Your task to perform on an android device: Open Android settings Image 0: 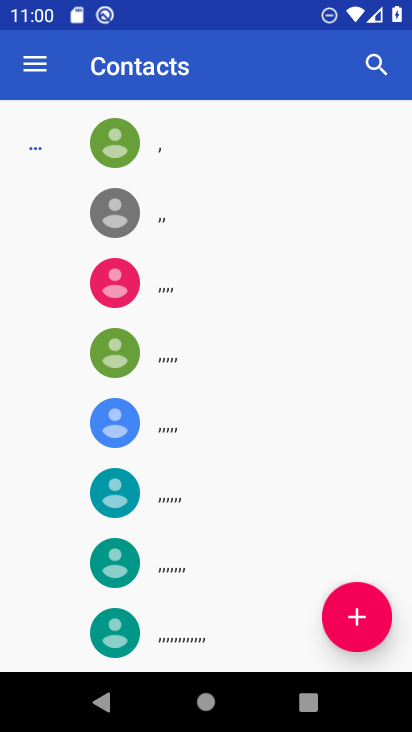
Step 0: press home button
Your task to perform on an android device: Open Android settings Image 1: 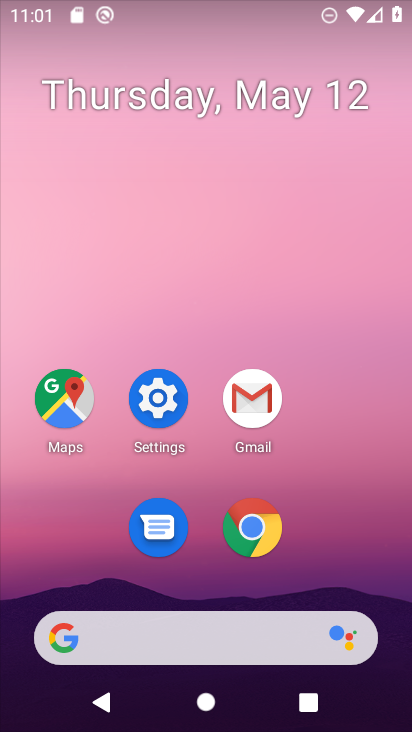
Step 1: click (150, 408)
Your task to perform on an android device: Open Android settings Image 2: 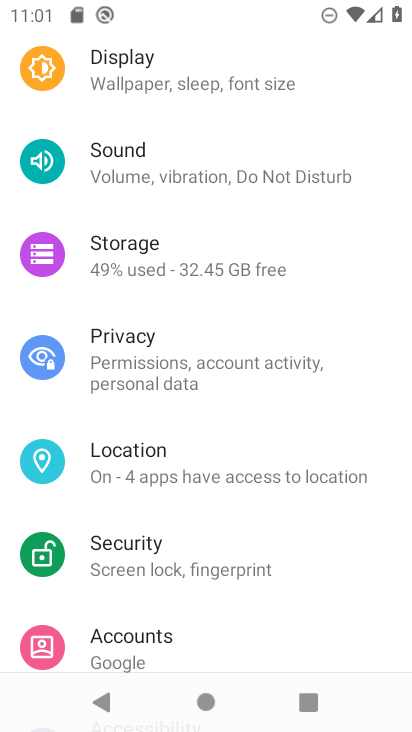
Step 2: task complete